Your task to perform on an android device: turn off sleep mode Image 0: 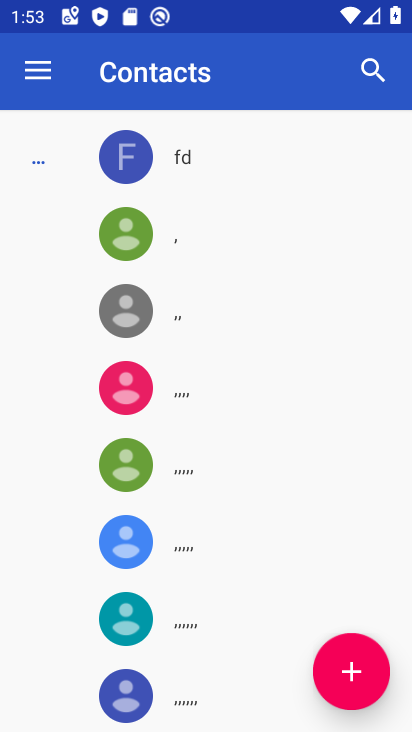
Step 0: press home button
Your task to perform on an android device: turn off sleep mode Image 1: 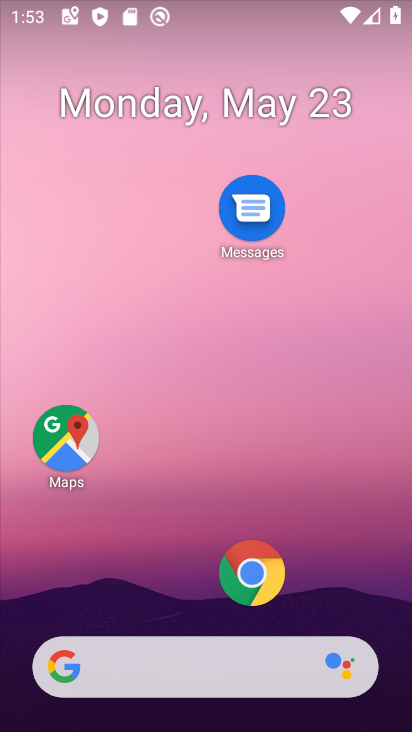
Step 1: drag from (171, 571) to (184, 66)
Your task to perform on an android device: turn off sleep mode Image 2: 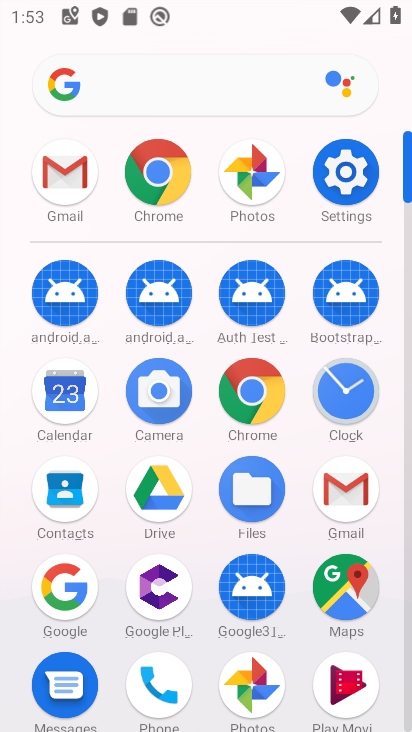
Step 2: click (347, 168)
Your task to perform on an android device: turn off sleep mode Image 3: 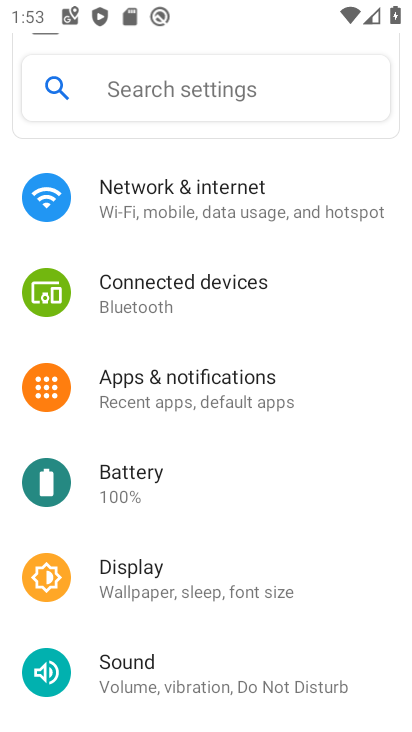
Step 3: click (192, 599)
Your task to perform on an android device: turn off sleep mode Image 4: 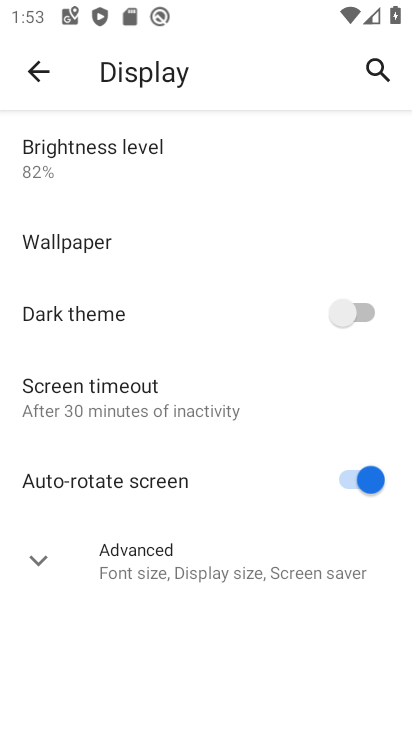
Step 4: click (120, 573)
Your task to perform on an android device: turn off sleep mode Image 5: 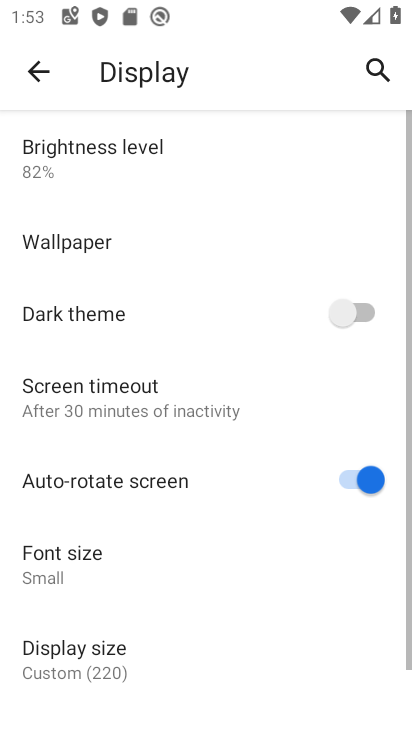
Step 5: drag from (245, 597) to (246, 275)
Your task to perform on an android device: turn off sleep mode Image 6: 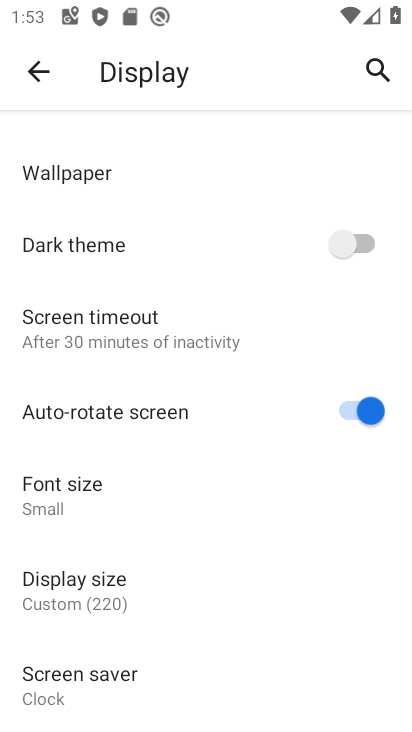
Step 6: drag from (257, 213) to (243, 521)
Your task to perform on an android device: turn off sleep mode Image 7: 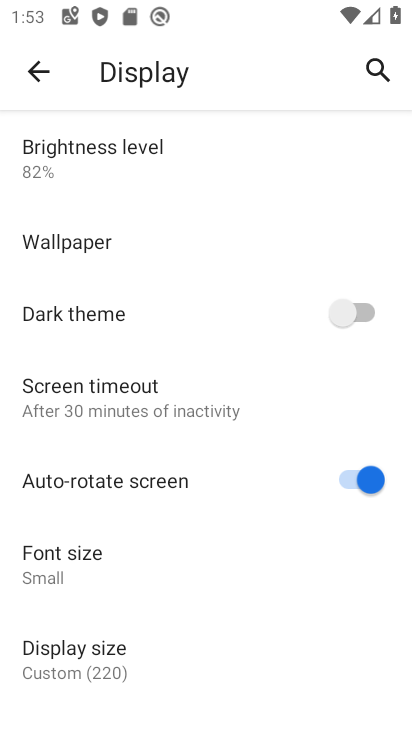
Step 7: click (149, 392)
Your task to perform on an android device: turn off sleep mode Image 8: 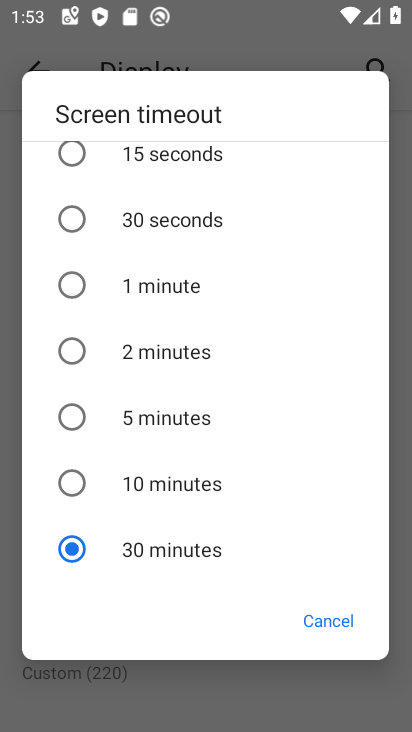
Step 8: click (343, 616)
Your task to perform on an android device: turn off sleep mode Image 9: 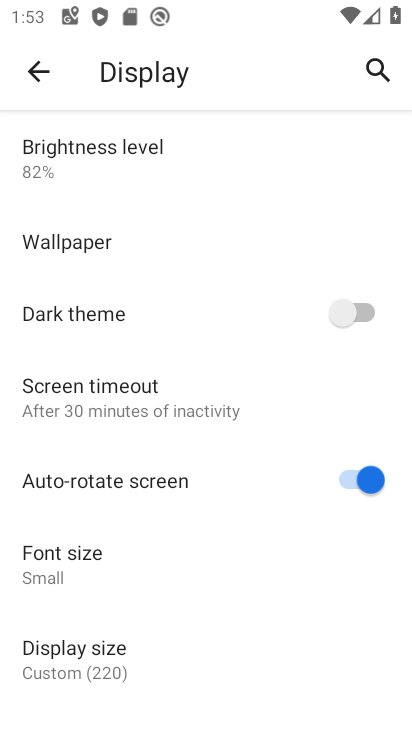
Step 9: press back button
Your task to perform on an android device: turn off sleep mode Image 10: 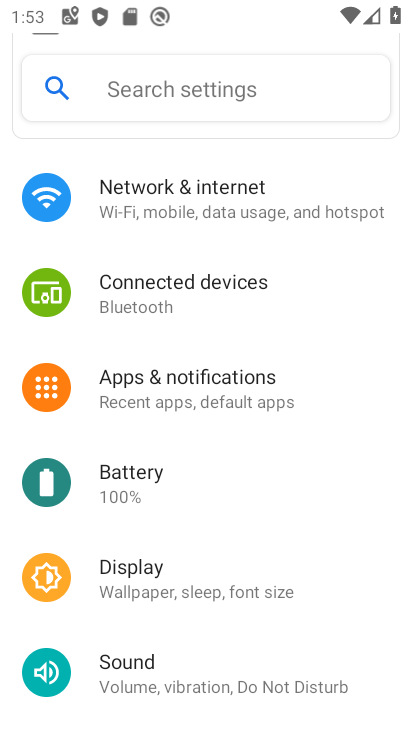
Step 10: click (210, 593)
Your task to perform on an android device: turn off sleep mode Image 11: 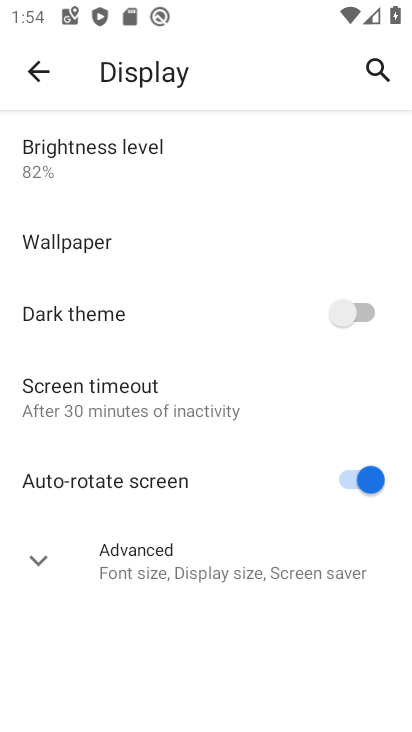
Step 11: task complete